Your task to perform on an android device: turn on bluetooth scan Image 0: 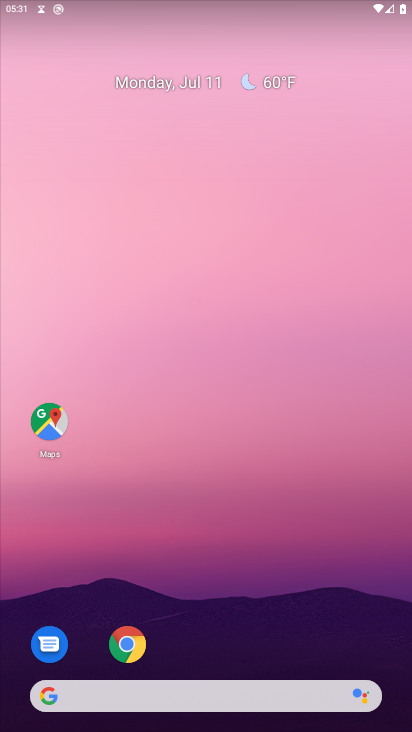
Step 0: drag from (234, 685) to (243, 270)
Your task to perform on an android device: turn on bluetooth scan Image 1: 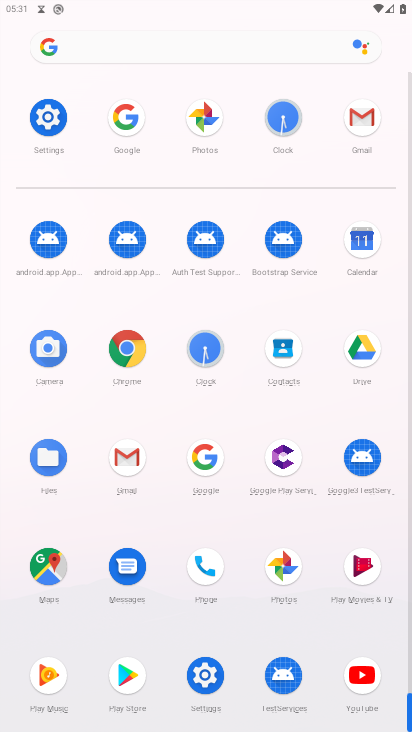
Step 1: click (53, 118)
Your task to perform on an android device: turn on bluetooth scan Image 2: 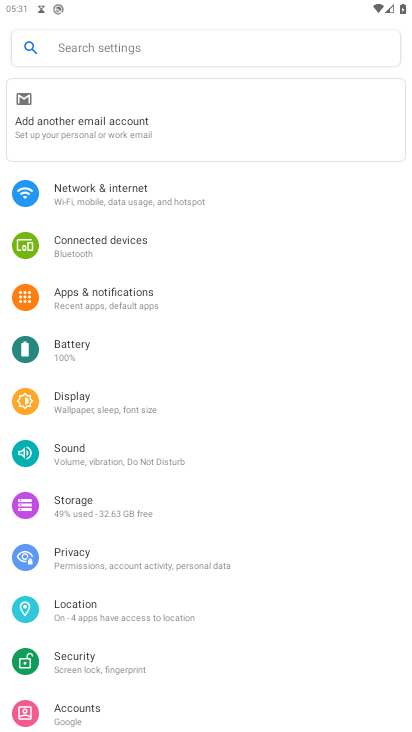
Step 2: click (65, 615)
Your task to perform on an android device: turn on bluetooth scan Image 3: 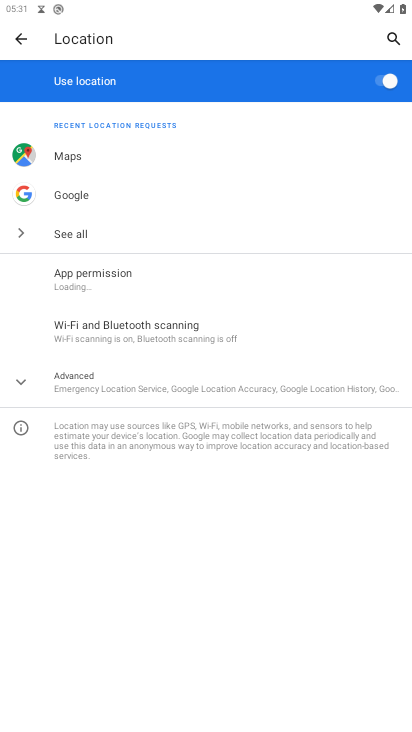
Step 3: click (64, 379)
Your task to perform on an android device: turn on bluetooth scan Image 4: 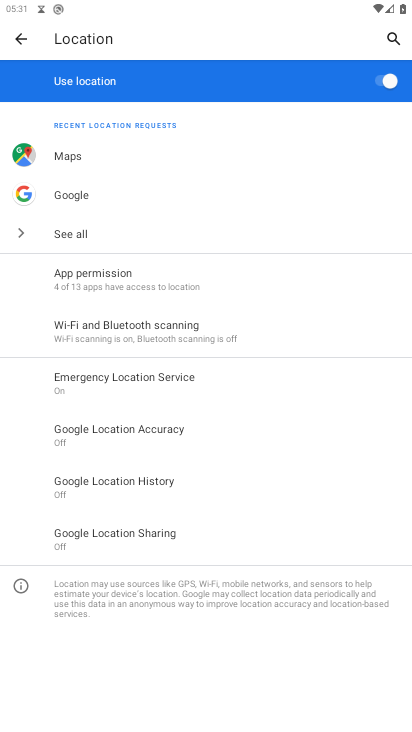
Step 4: click (83, 325)
Your task to perform on an android device: turn on bluetooth scan Image 5: 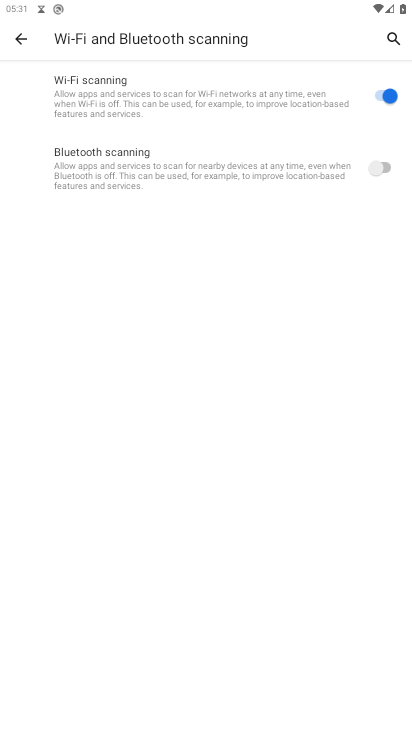
Step 5: click (383, 162)
Your task to perform on an android device: turn on bluetooth scan Image 6: 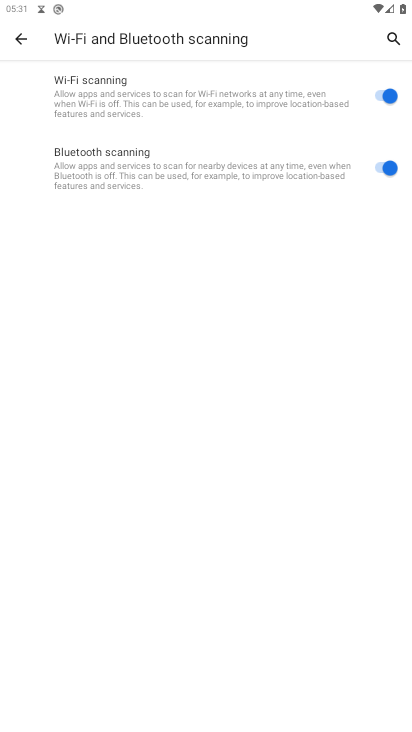
Step 6: task complete